Your task to perform on an android device: allow cookies in the chrome app Image 0: 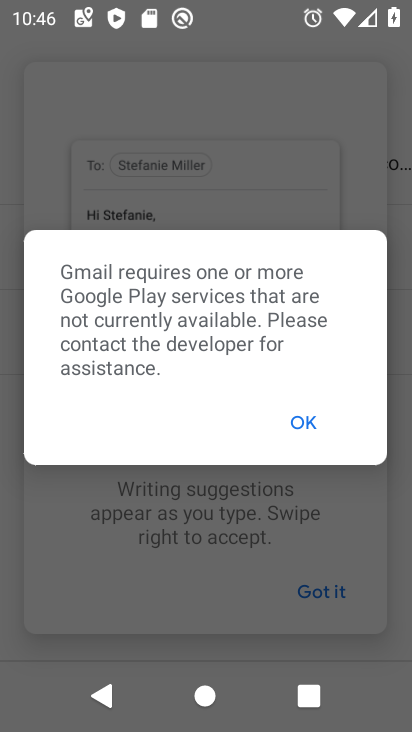
Step 0: press home button
Your task to perform on an android device: allow cookies in the chrome app Image 1: 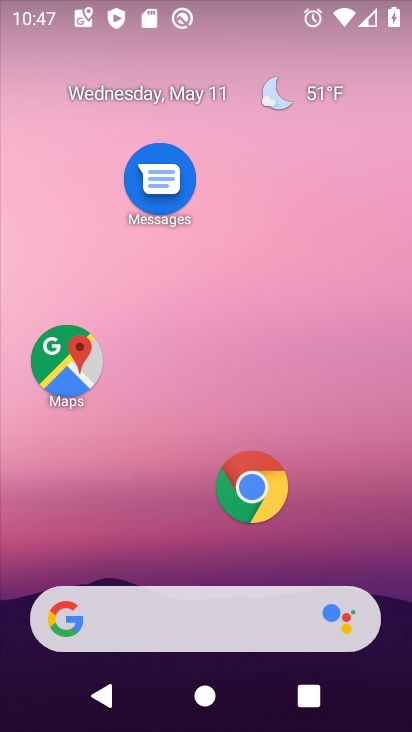
Step 1: click (261, 472)
Your task to perform on an android device: allow cookies in the chrome app Image 2: 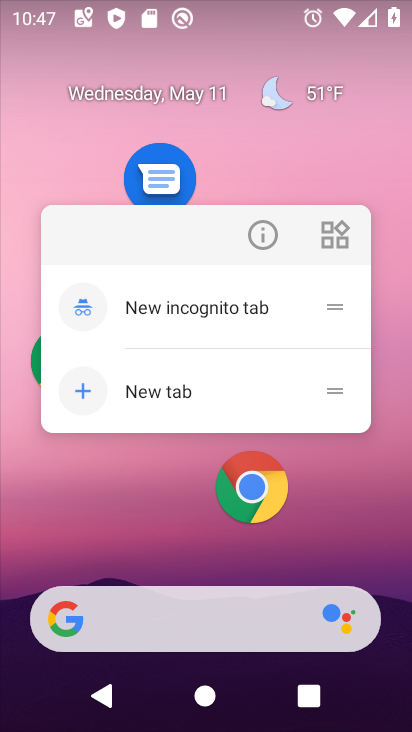
Step 2: click (259, 472)
Your task to perform on an android device: allow cookies in the chrome app Image 3: 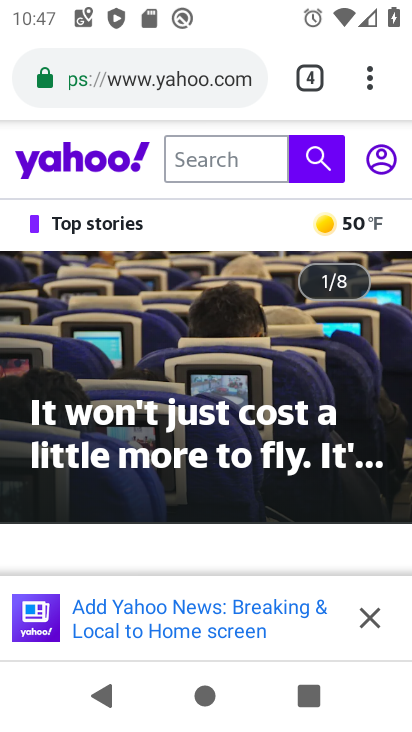
Step 3: drag from (371, 85) to (136, 577)
Your task to perform on an android device: allow cookies in the chrome app Image 4: 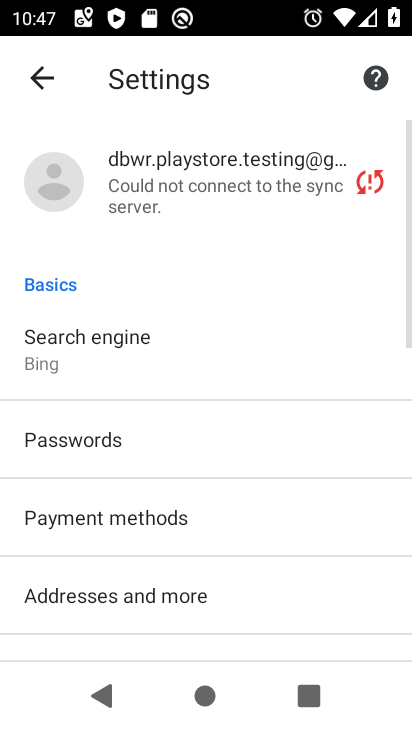
Step 4: drag from (146, 540) to (171, 246)
Your task to perform on an android device: allow cookies in the chrome app Image 5: 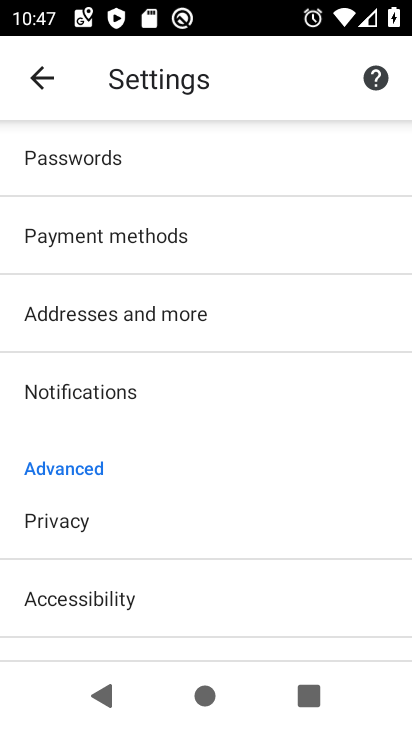
Step 5: drag from (143, 546) to (152, 294)
Your task to perform on an android device: allow cookies in the chrome app Image 6: 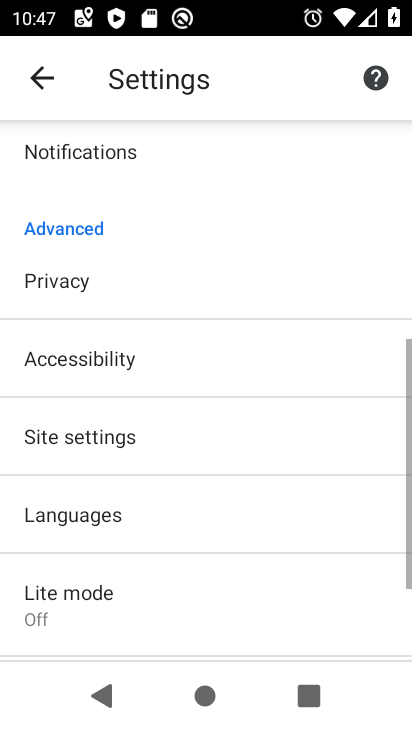
Step 6: drag from (165, 501) to (169, 339)
Your task to perform on an android device: allow cookies in the chrome app Image 7: 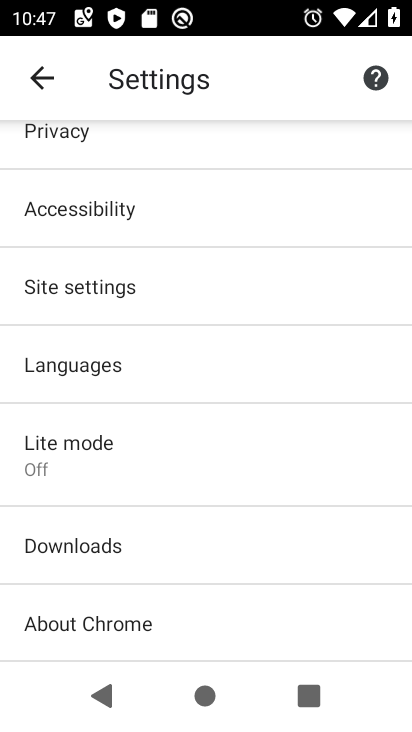
Step 7: click (127, 295)
Your task to perform on an android device: allow cookies in the chrome app Image 8: 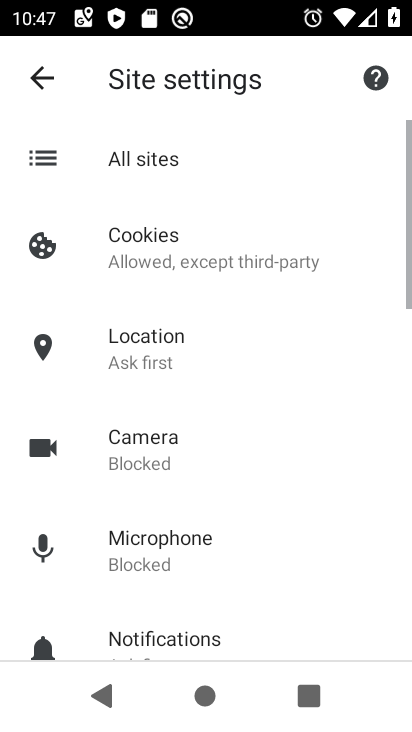
Step 8: click (155, 264)
Your task to perform on an android device: allow cookies in the chrome app Image 9: 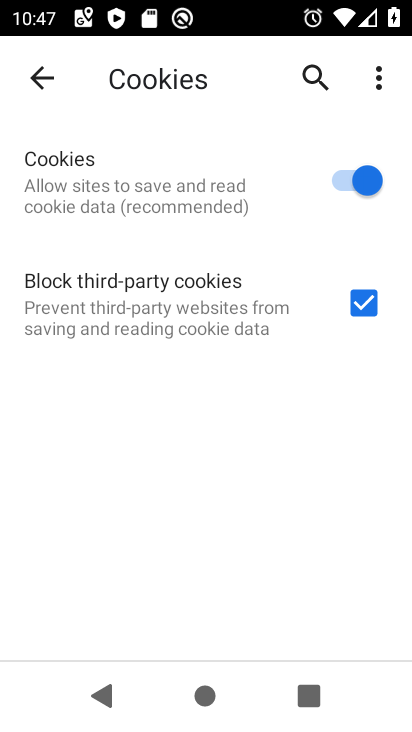
Step 9: task complete